Your task to perform on an android device: turn on bluetooth scan Image 0: 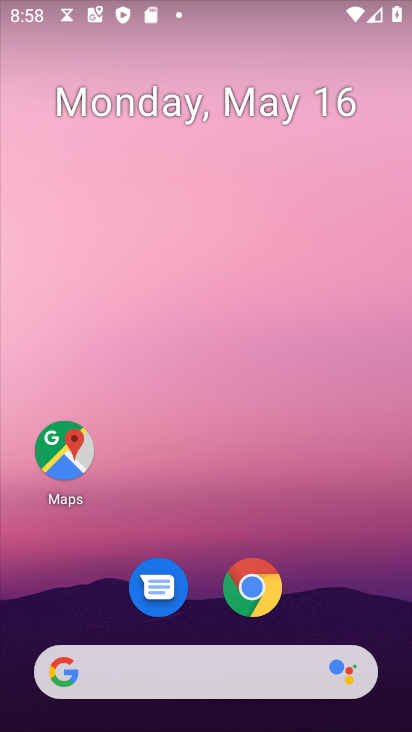
Step 0: drag from (348, 590) to (344, 254)
Your task to perform on an android device: turn on bluetooth scan Image 1: 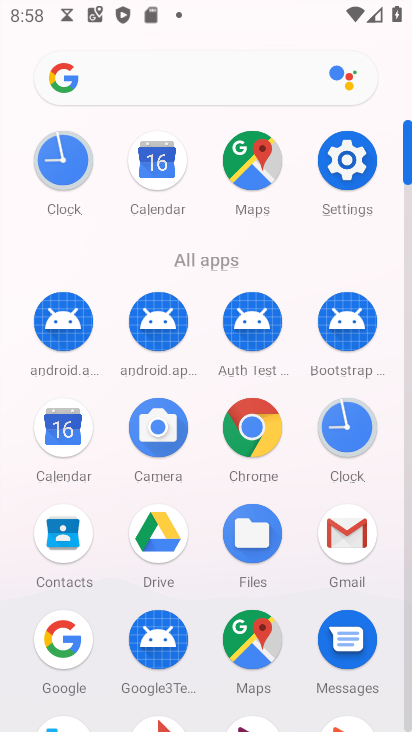
Step 1: click (353, 179)
Your task to perform on an android device: turn on bluetooth scan Image 2: 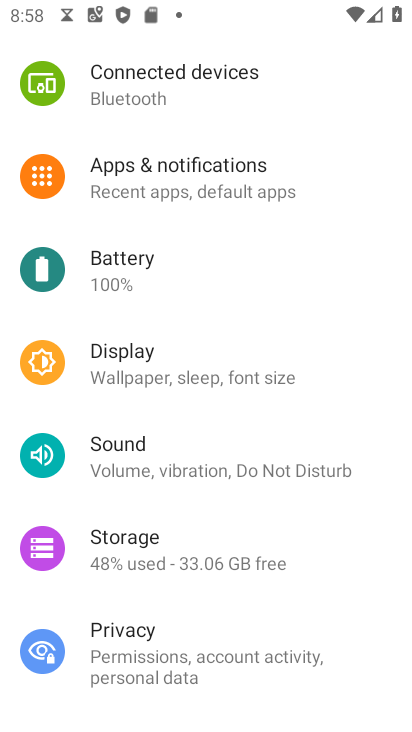
Step 2: drag from (252, 602) to (280, 263)
Your task to perform on an android device: turn on bluetooth scan Image 3: 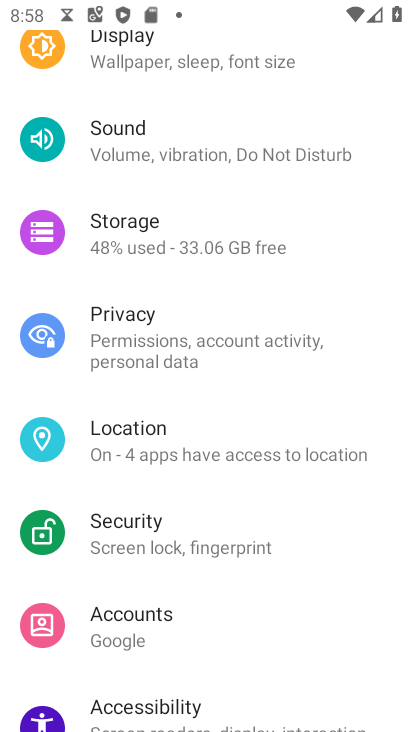
Step 3: click (249, 438)
Your task to perform on an android device: turn on bluetooth scan Image 4: 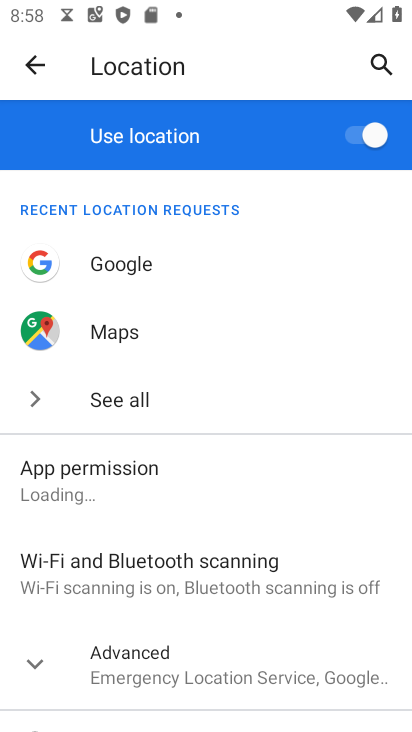
Step 4: click (267, 567)
Your task to perform on an android device: turn on bluetooth scan Image 5: 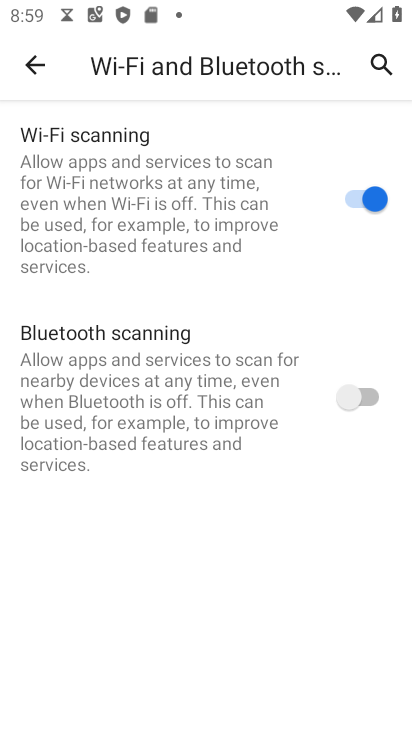
Step 5: click (359, 402)
Your task to perform on an android device: turn on bluetooth scan Image 6: 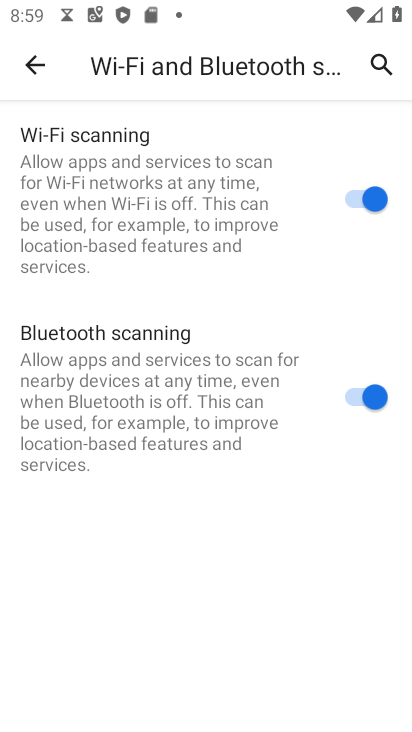
Step 6: task complete